Your task to perform on an android device: change alarm snooze length Image 0: 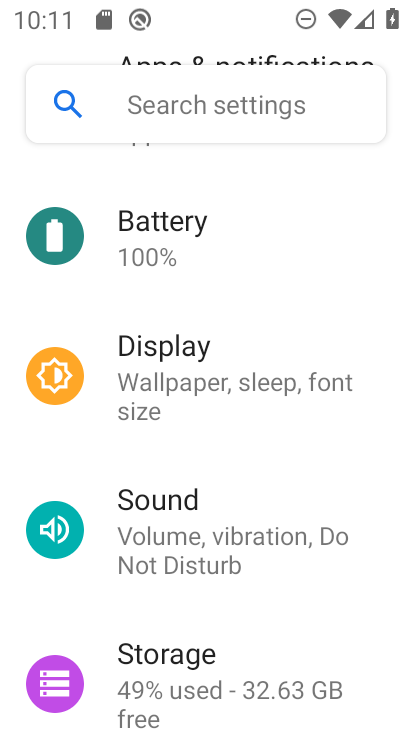
Step 0: press home button
Your task to perform on an android device: change alarm snooze length Image 1: 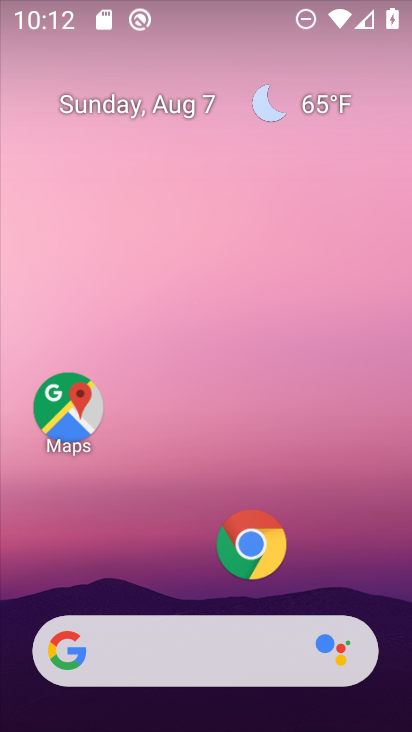
Step 1: drag from (224, 607) to (329, 432)
Your task to perform on an android device: change alarm snooze length Image 2: 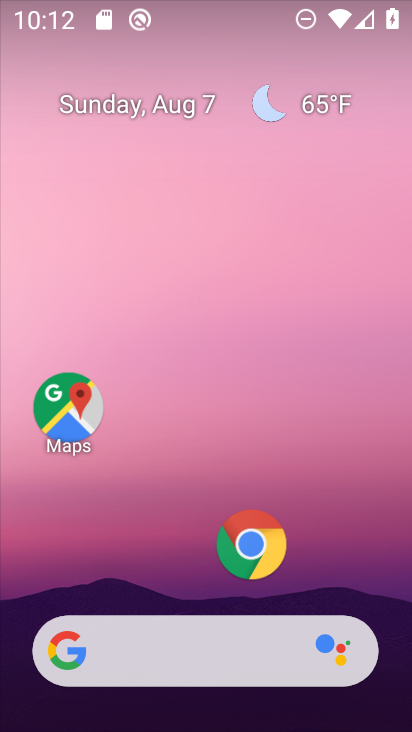
Step 2: click (352, 404)
Your task to perform on an android device: change alarm snooze length Image 3: 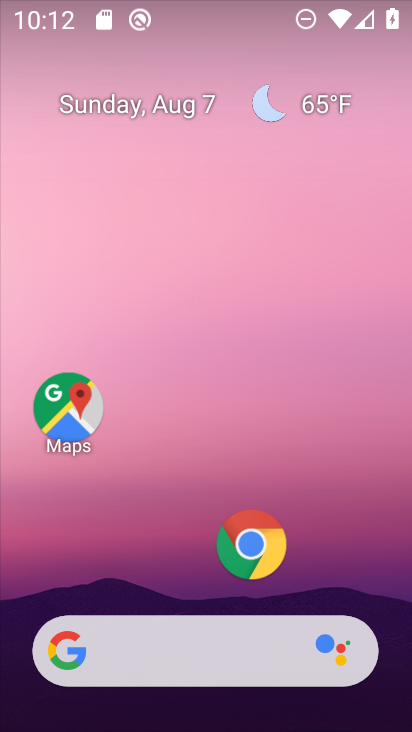
Step 3: drag from (238, 613) to (340, 84)
Your task to perform on an android device: change alarm snooze length Image 4: 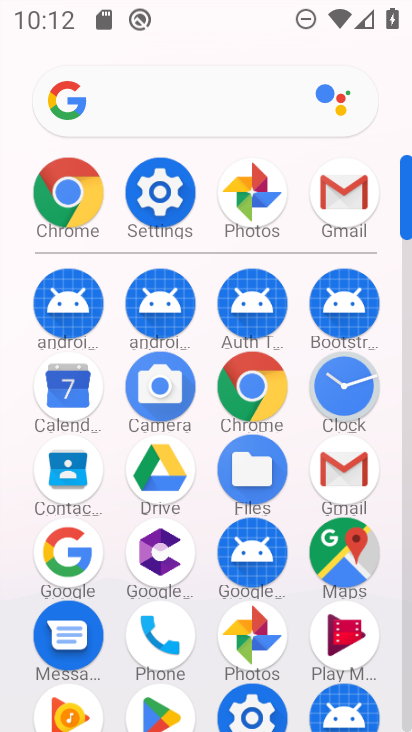
Step 4: click (329, 381)
Your task to perform on an android device: change alarm snooze length Image 5: 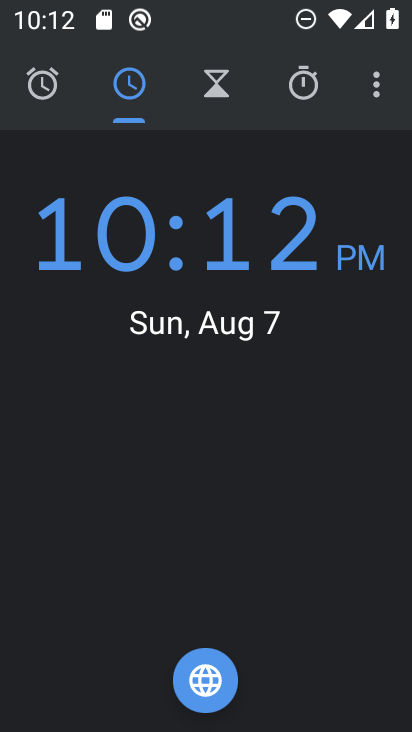
Step 5: drag from (370, 88) to (218, 169)
Your task to perform on an android device: change alarm snooze length Image 6: 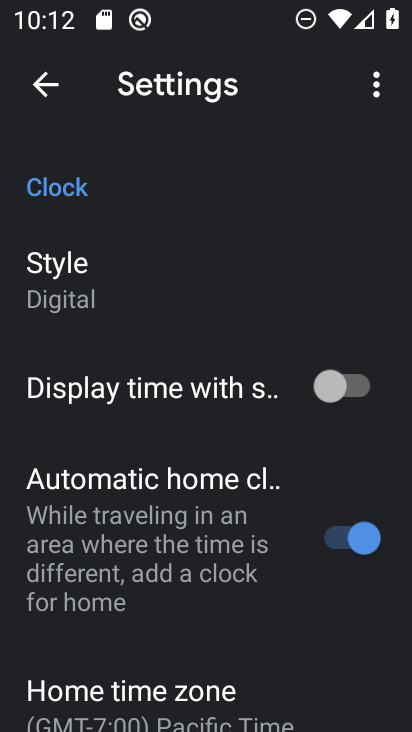
Step 6: drag from (235, 539) to (243, 17)
Your task to perform on an android device: change alarm snooze length Image 7: 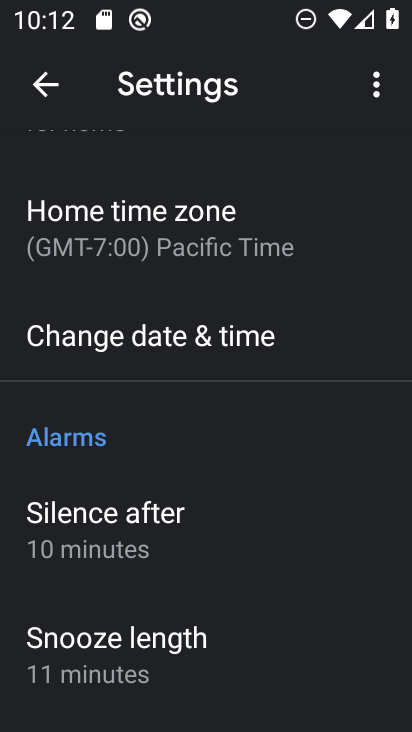
Step 7: click (175, 649)
Your task to perform on an android device: change alarm snooze length Image 8: 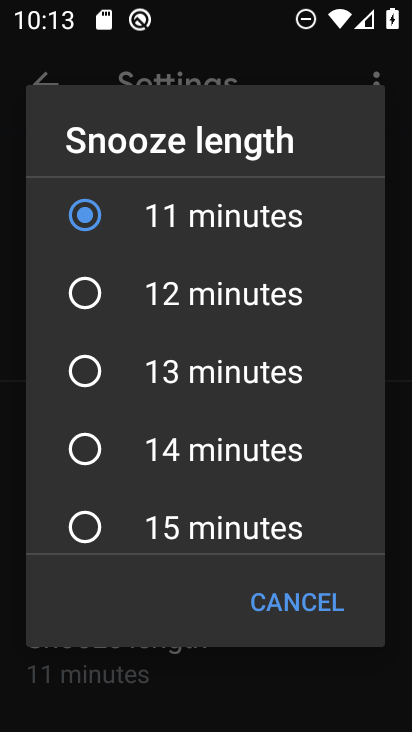
Step 8: task complete